Your task to perform on an android device: Open the phone app and click the voicemail tab. Image 0: 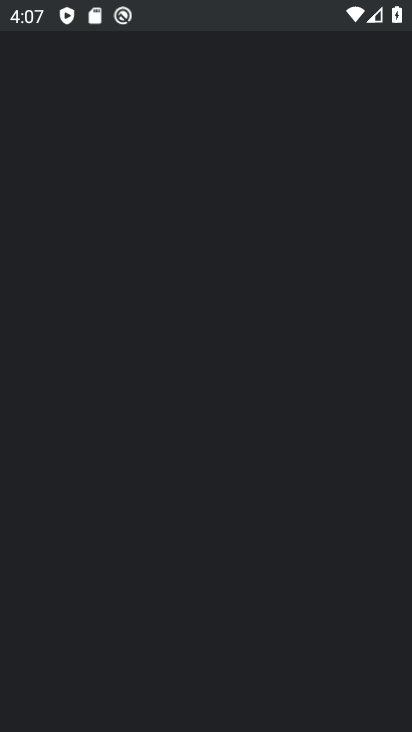
Step 0: press home button
Your task to perform on an android device: Open the phone app and click the voicemail tab. Image 1: 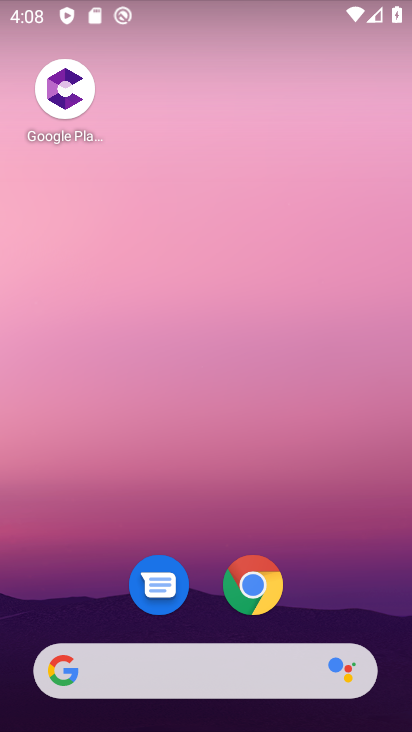
Step 1: drag from (332, 593) to (296, 38)
Your task to perform on an android device: Open the phone app and click the voicemail tab. Image 2: 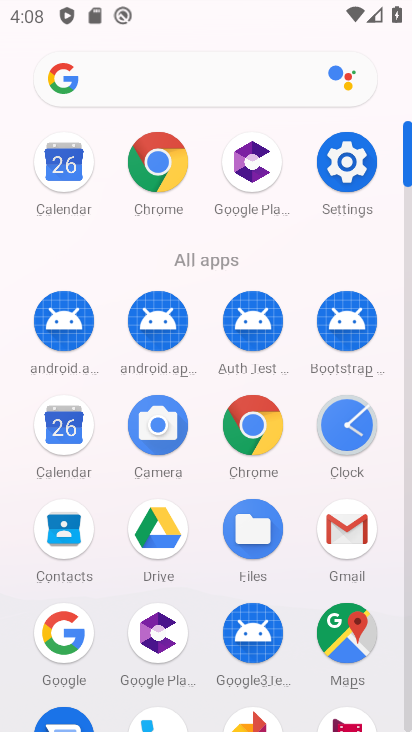
Step 2: drag from (219, 476) to (224, 172)
Your task to perform on an android device: Open the phone app and click the voicemail tab. Image 3: 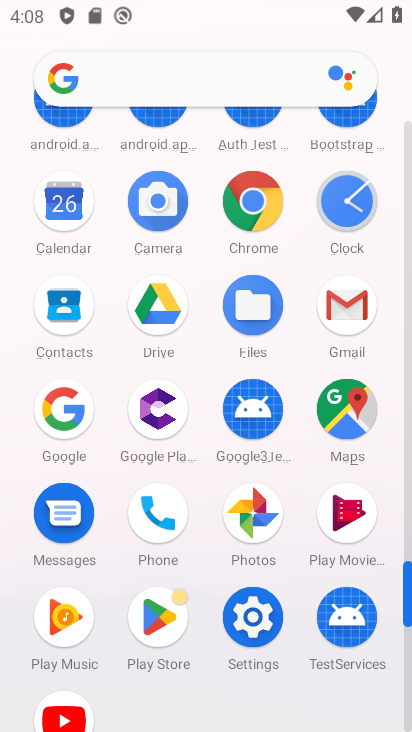
Step 3: click (162, 512)
Your task to perform on an android device: Open the phone app and click the voicemail tab. Image 4: 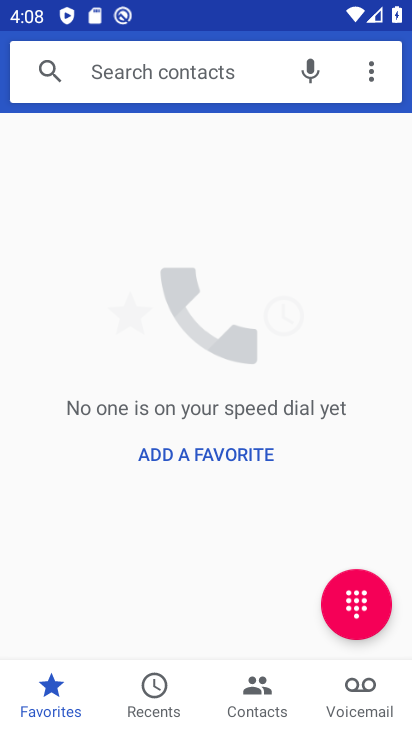
Step 4: click (368, 697)
Your task to perform on an android device: Open the phone app and click the voicemail tab. Image 5: 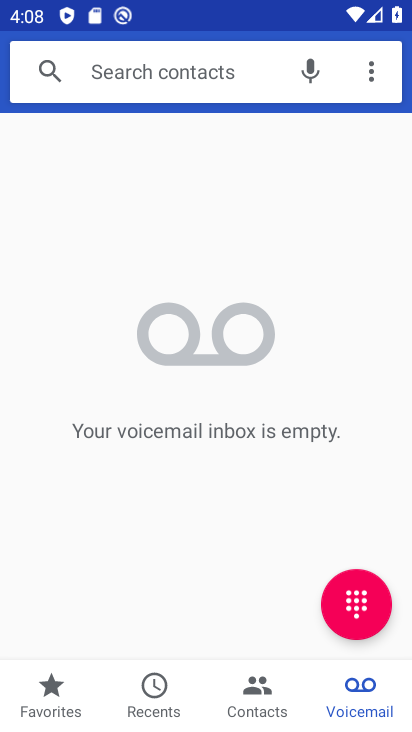
Step 5: task complete